Your task to perform on an android device: Open the calendar and show me this week's events? Image 0: 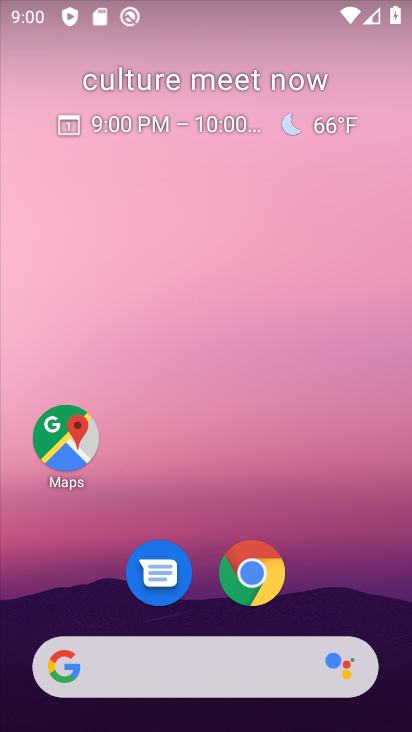
Step 0: drag from (195, 599) to (266, 78)
Your task to perform on an android device: Open the calendar and show me this week's events? Image 1: 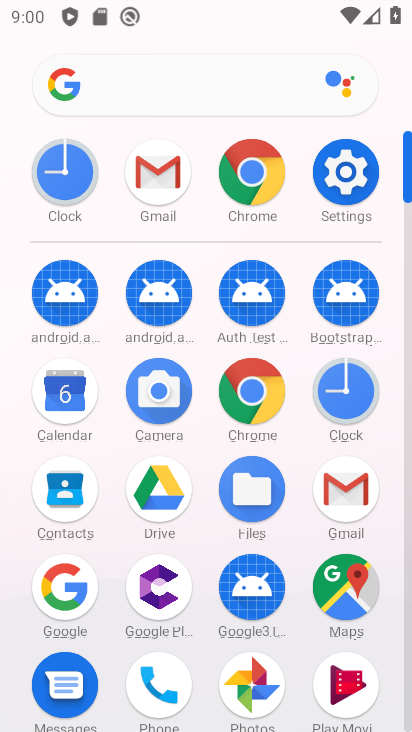
Step 1: click (59, 402)
Your task to perform on an android device: Open the calendar and show me this week's events? Image 2: 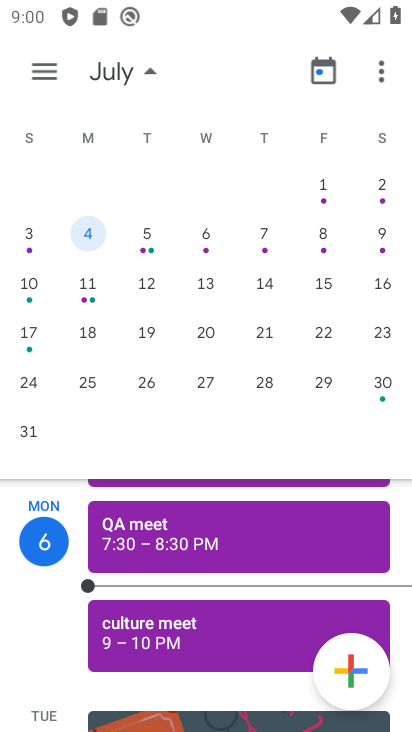
Step 2: press back button
Your task to perform on an android device: Open the calendar and show me this week's events? Image 3: 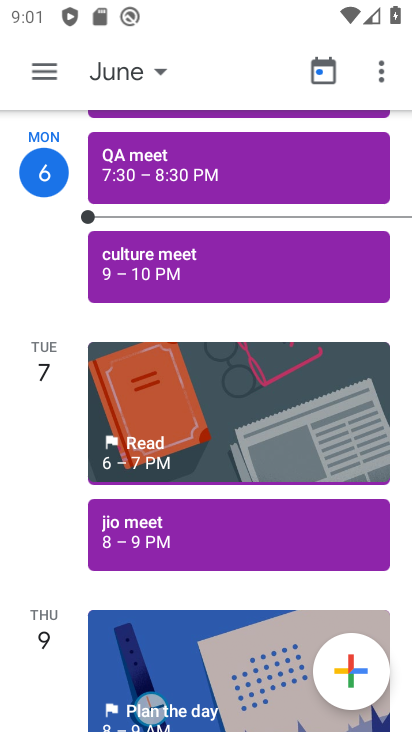
Step 3: drag from (189, 569) to (254, 138)
Your task to perform on an android device: Open the calendar and show me this week's events? Image 4: 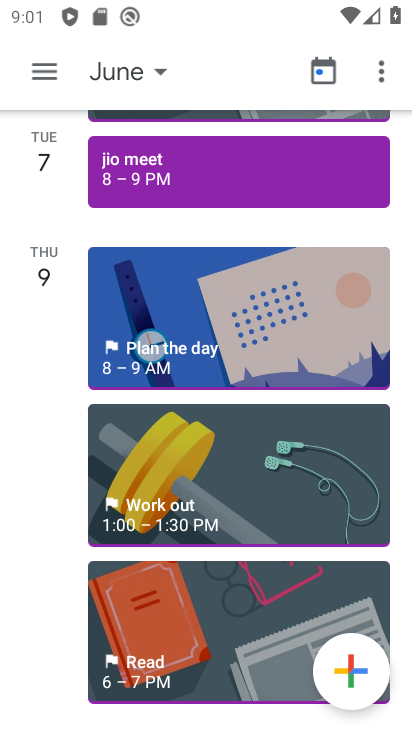
Step 4: drag from (125, 633) to (228, 207)
Your task to perform on an android device: Open the calendar and show me this week's events? Image 5: 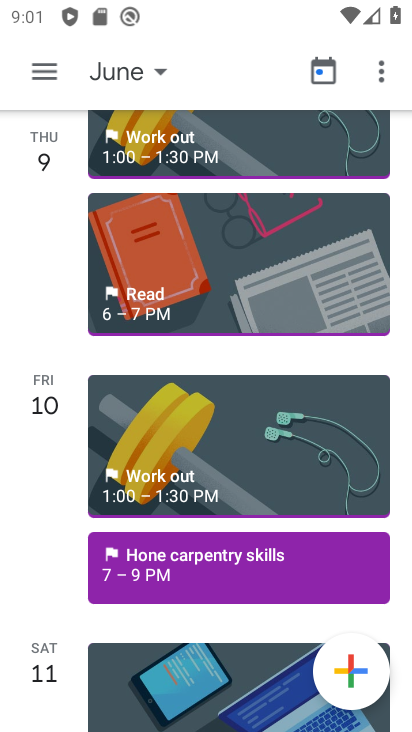
Step 5: drag from (235, 655) to (328, 77)
Your task to perform on an android device: Open the calendar and show me this week's events? Image 6: 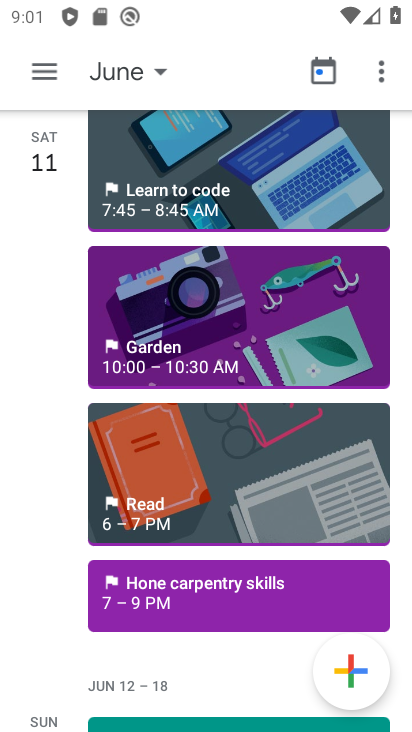
Step 6: drag from (324, 203) to (278, 589)
Your task to perform on an android device: Open the calendar and show me this week's events? Image 7: 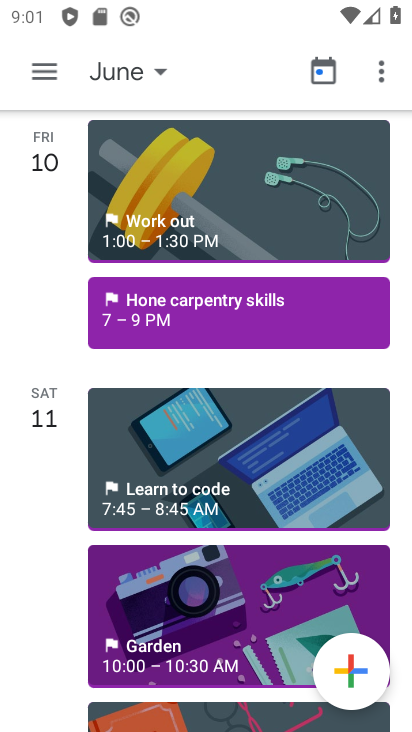
Step 7: drag from (191, 278) to (188, 691)
Your task to perform on an android device: Open the calendar and show me this week's events? Image 8: 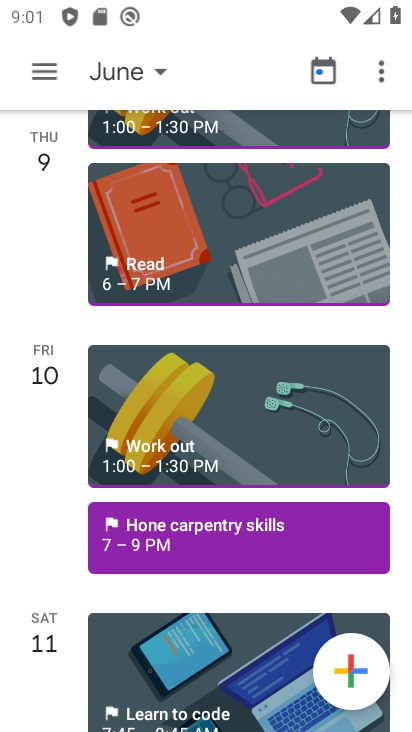
Step 8: drag from (203, 234) to (158, 667)
Your task to perform on an android device: Open the calendar and show me this week's events? Image 9: 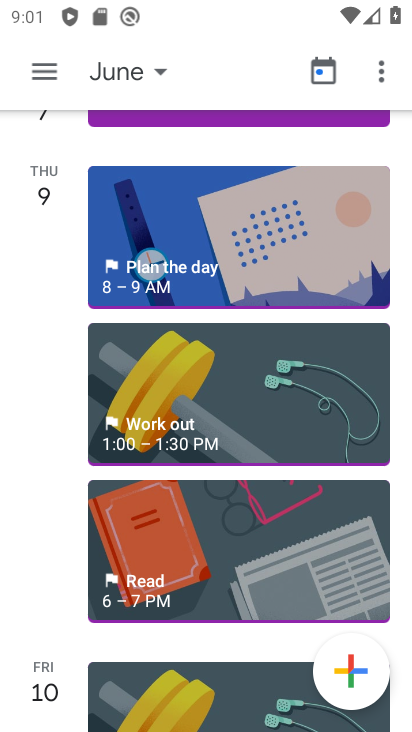
Step 9: drag from (183, 244) to (183, 638)
Your task to perform on an android device: Open the calendar and show me this week's events? Image 10: 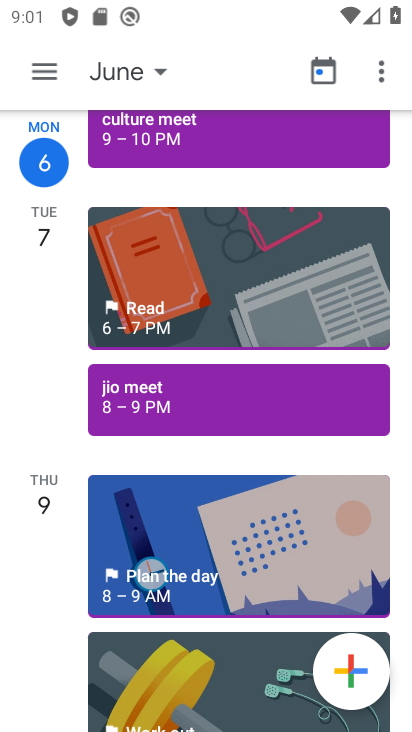
Step 10: drag from (179, 618) to (267, 226)
Your task to perform on an android device: Open the calendar and show me this week's events? Image 11: 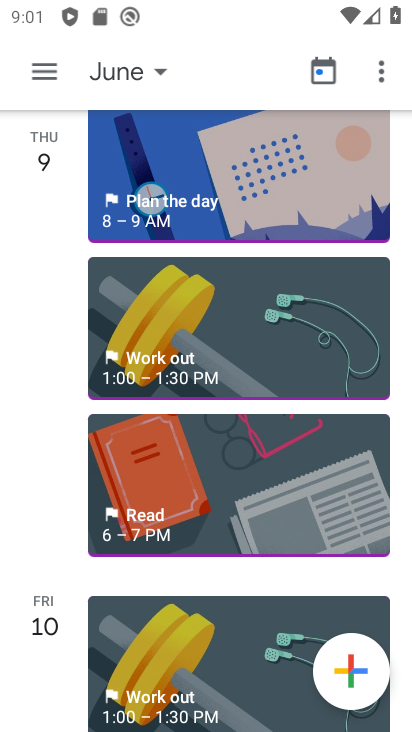
Step 11: click (163, 343)
Your task to perform on an android device: Open the calendar and show me this week's events? Image 12: 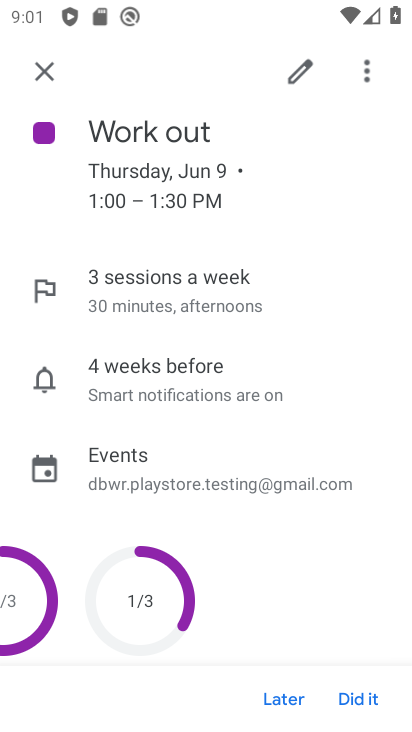
Step 12: task complete